Your task to perform on an android device: Go to network settings Image 0: 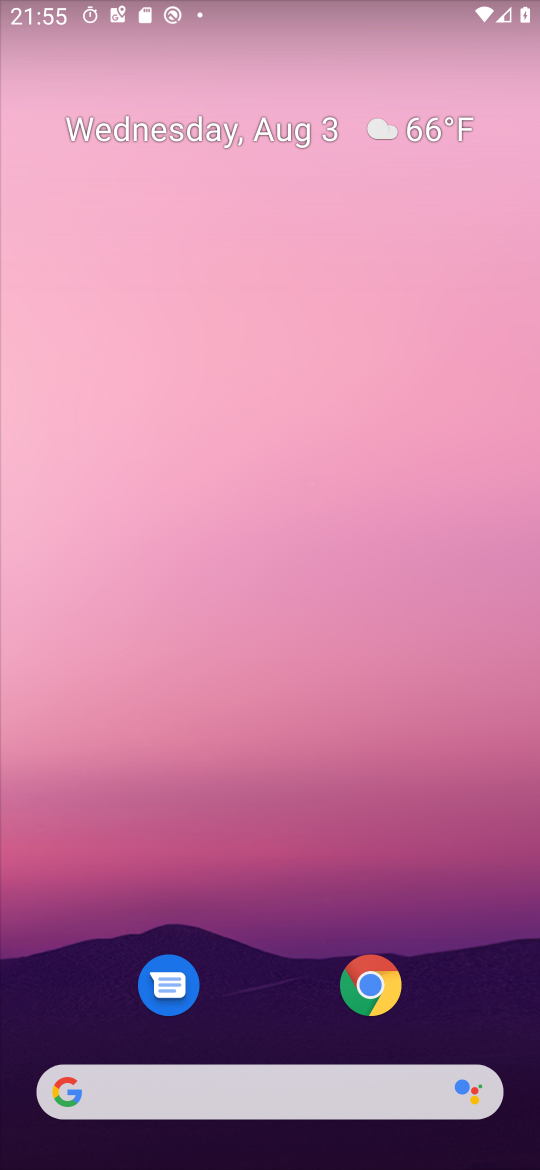
Step 0: drag from (291, 975) to (300, 187)
Your task to perform on an android device: Go to network settings Image 1: 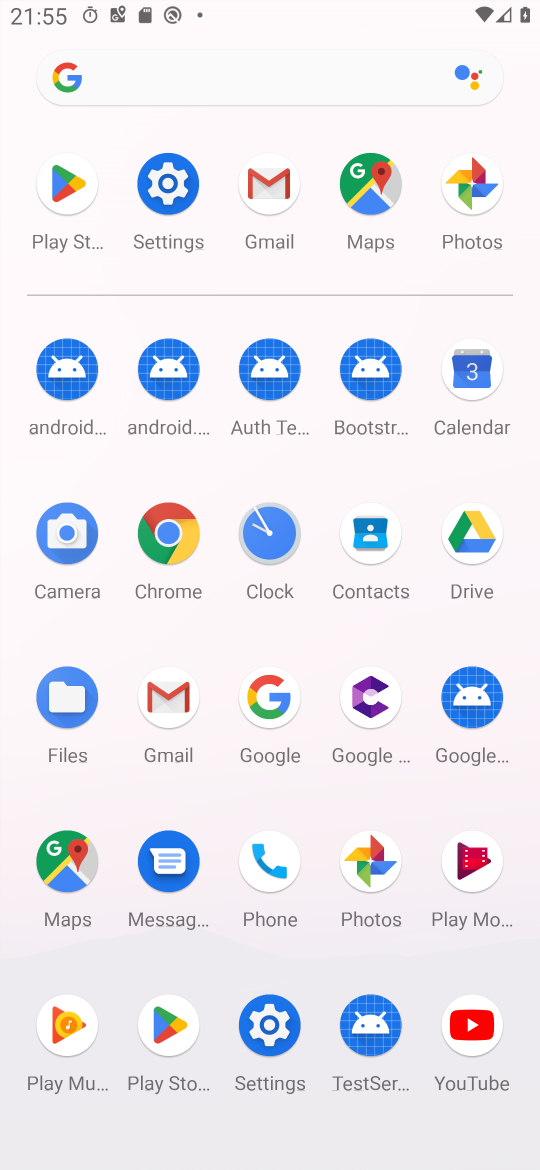
Step 1: click (166, 194)
Your task to perform on an android device: Go to network settings Image 2: 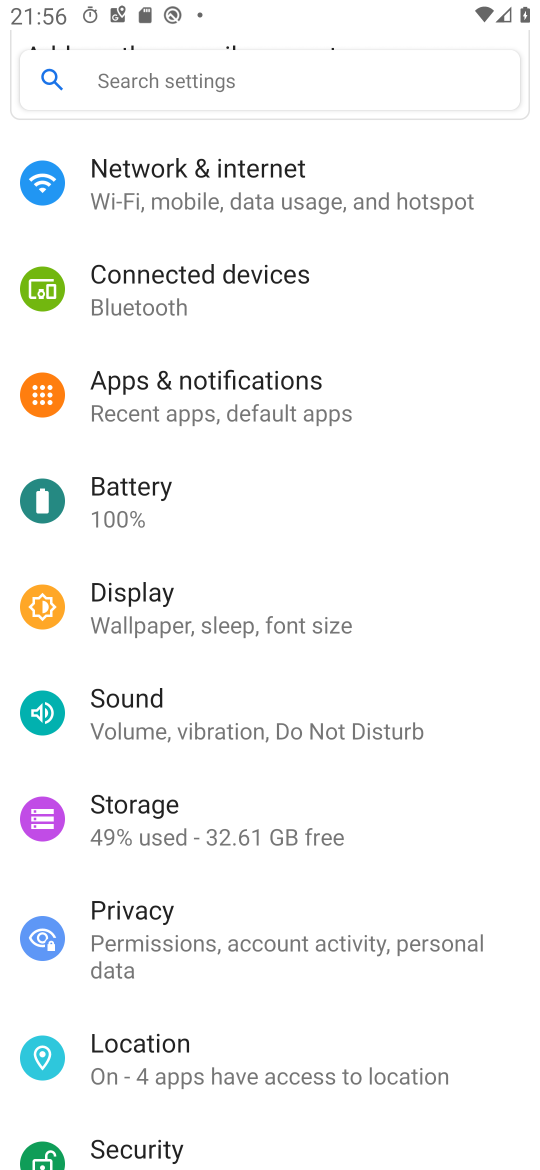
Step 2: task complete